Your task to perform on an android device: choose inbox layout in the gmail app Image 0: 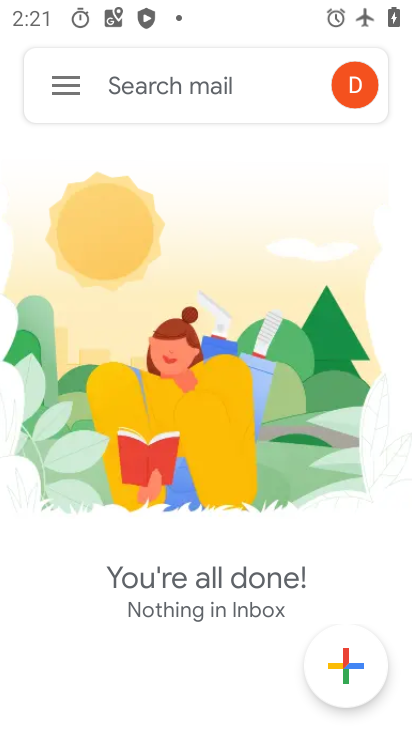
Step 0: click (68, 77)
Your task to perform on an android device: choose inbox layout in the gmail app Image 1: 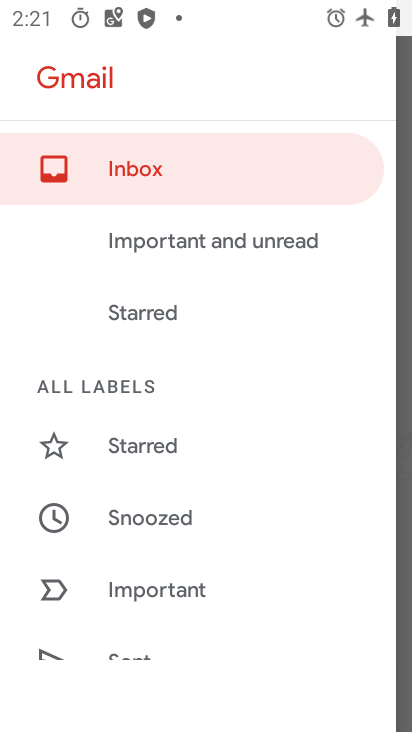
Step 1: drag from (163, 605) to (235, 163)
Your task to perform on an android device: choose inbox layout in the gmail app Image 2: 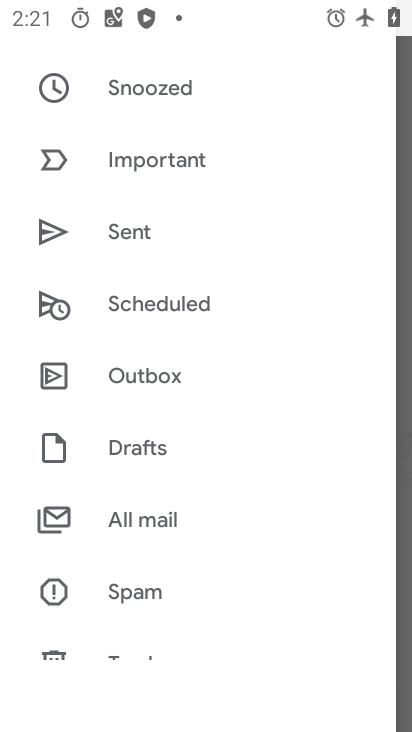
Step 2: drag from (158, 594) to (244, 98)
Your task to perform on an android device: choose inbox layout in the gmail app Image 3: 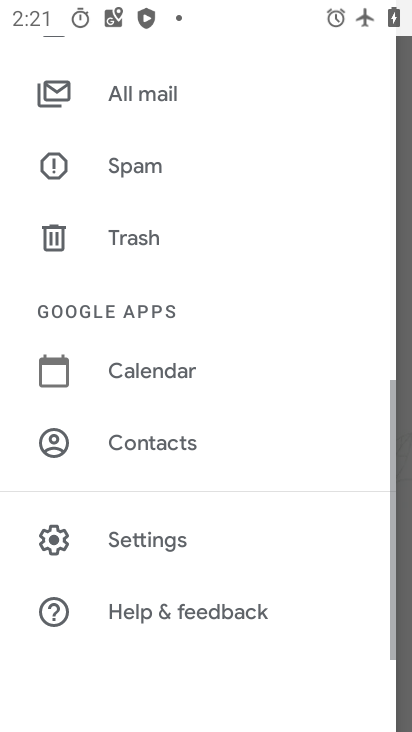
Step 3: click (132, 540)
Your task to perform on an android device: choose inbox layout in the gmail app Image 4: 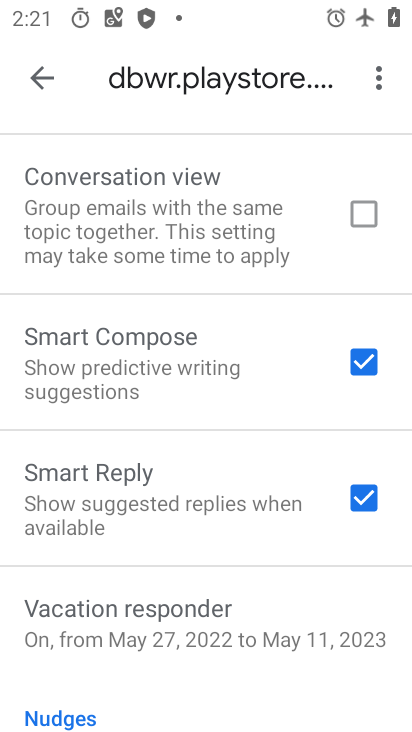
Step 4: drag from (165, 659) to (198, 692)
Your task to perform on an android device: choose inbox layout in the gmail app Image 5: 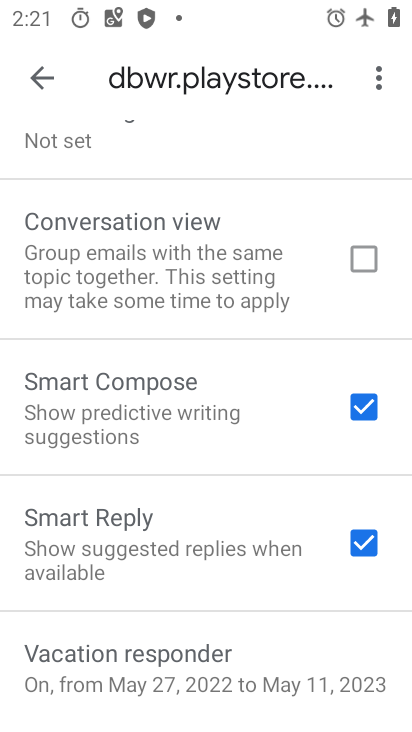
Step 5: drag from (162, 189) to (123, 718)
Your task to perform on an android device: choose inbox layout in the gmail app Image 6: 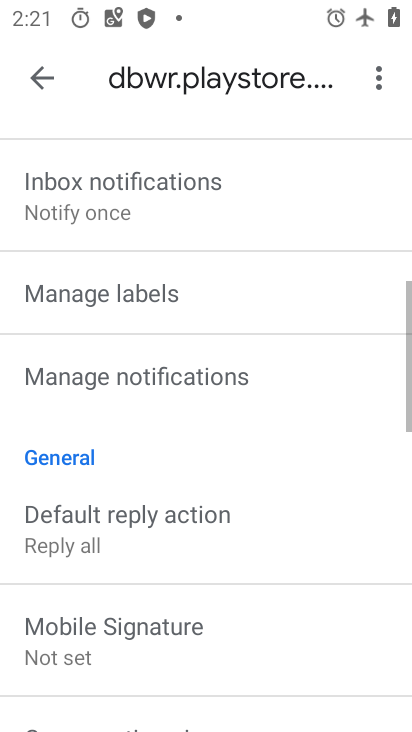
Step 6: drag from (180, 229) to (119, 724)
Your task to perform on an android device: choose inbox layout in the gmail app Image 7: 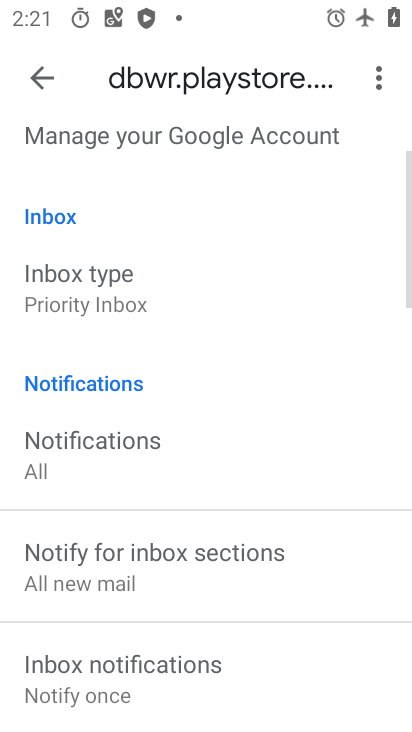
Step 7: click (85, 286)
Your task to perform on an android device: choose inbox layout in the gmail app Image 8: 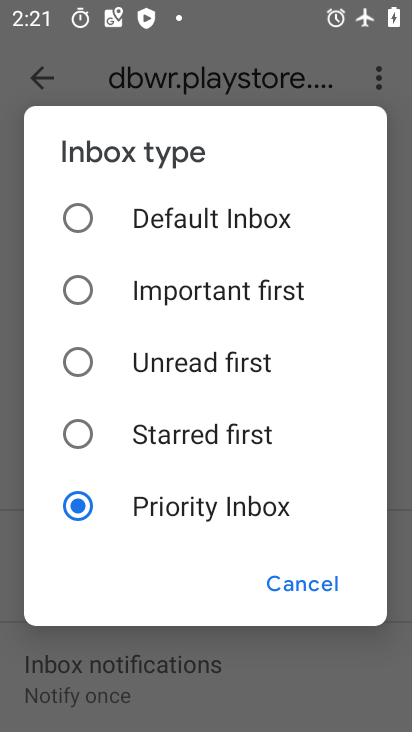
Step 8: click (75, 211)
Your task to perform on an android device: choose inbox layout in the gmail app Image 9: 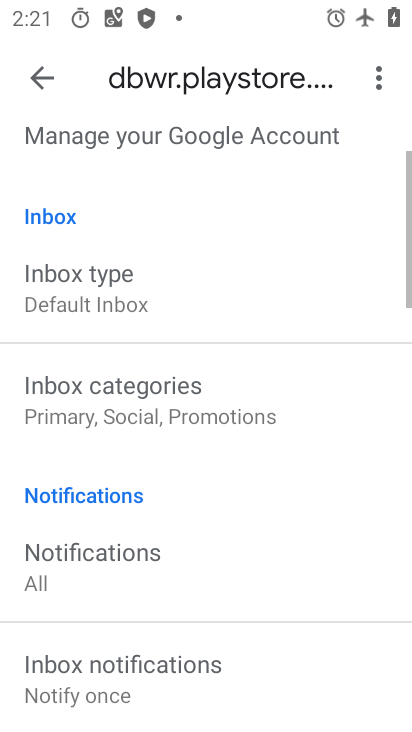
Step 9: task complete